Your task to perform on an android device: Show me recent news Image 0: 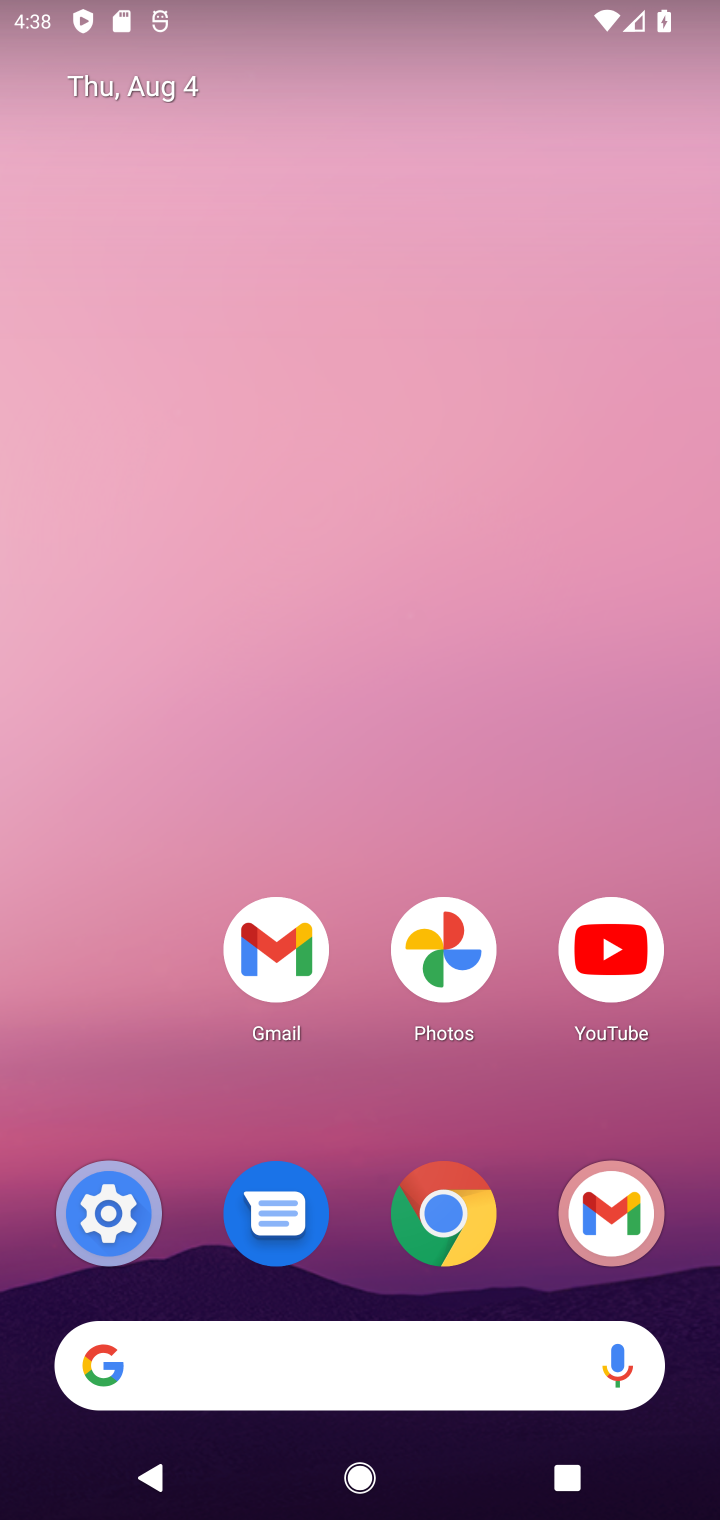
Step 0: drag from (0, 511) to (692, 727)
Your task to perform on an android device: Show me recent news Image 1: 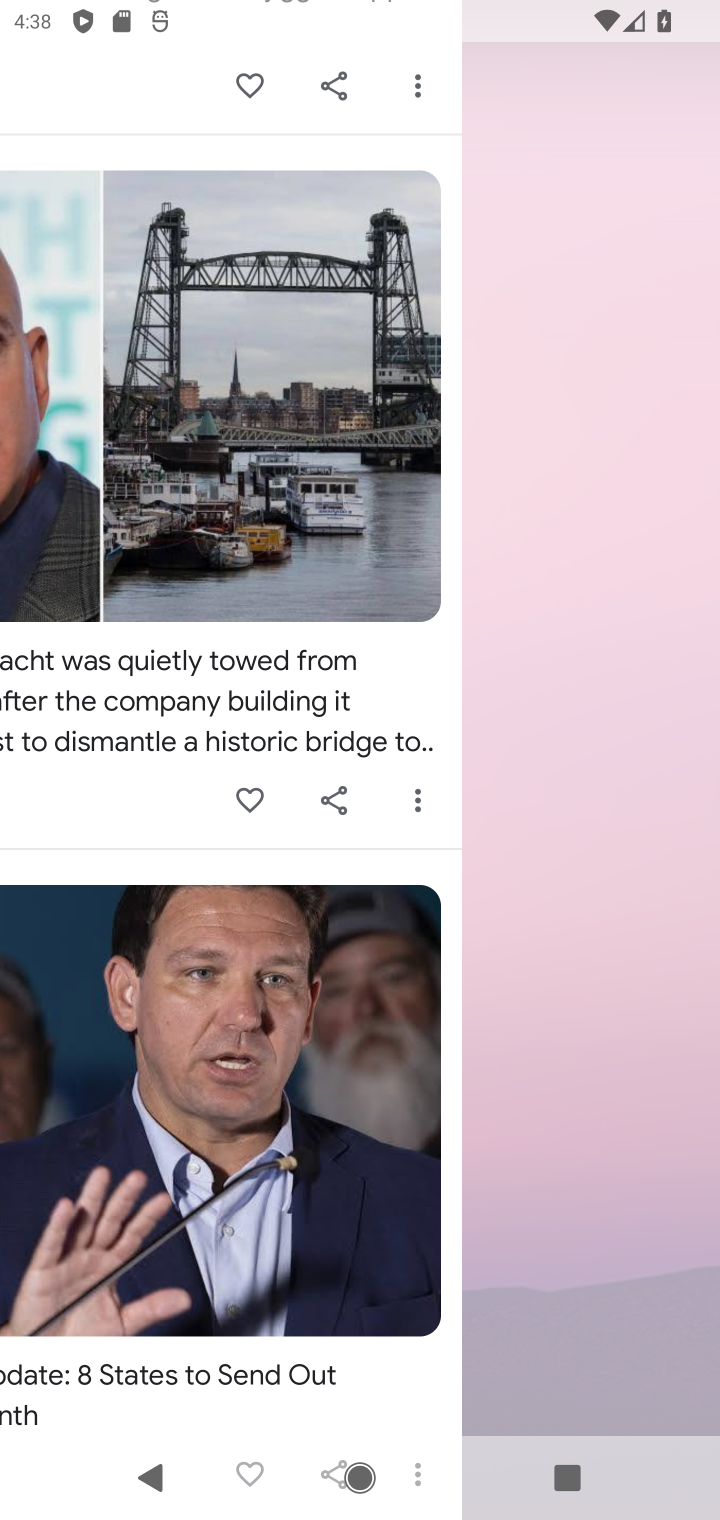
Step 1: task complete